Your task to perform on an android device: Set the phone to "Do not disturb". Image 0: 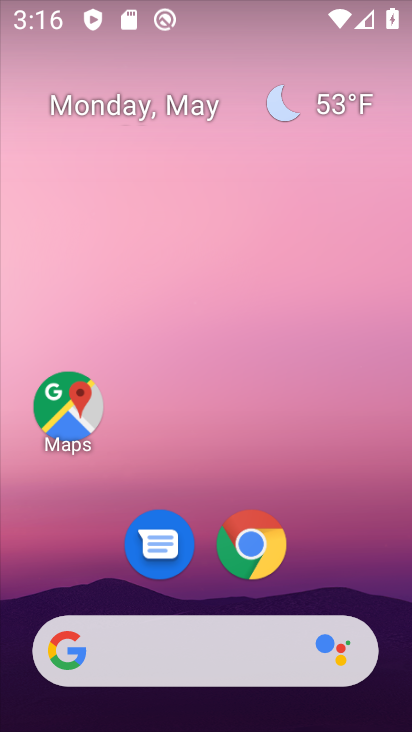
Step 0: drag from (199, 9) to (165, 687)
Your task to perform on an android device: Set the phone to "Do not disturb". Image 1: 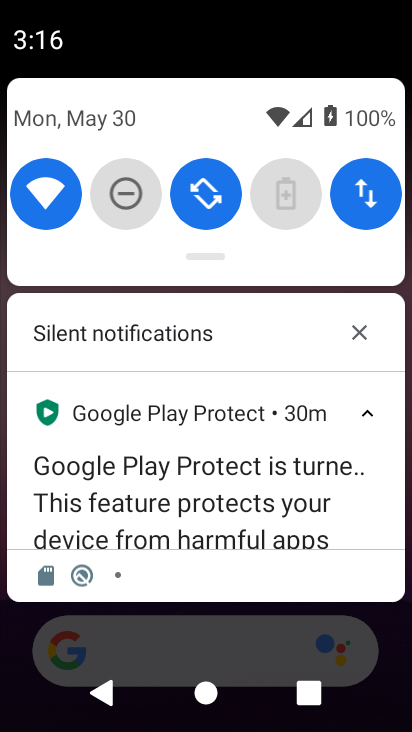
Step 1: click (130, 215)
Your task to perform on an android device: Set the phone to "Do not disturb". Image 2: 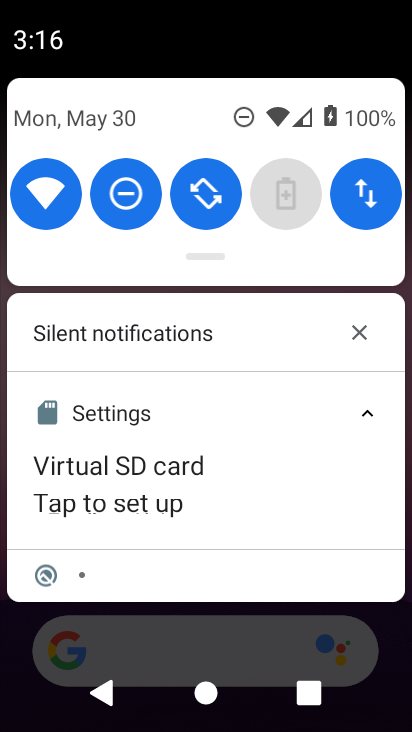
Step 2: task complete